Your task to perform on an android device: Go to Maps Image 0: 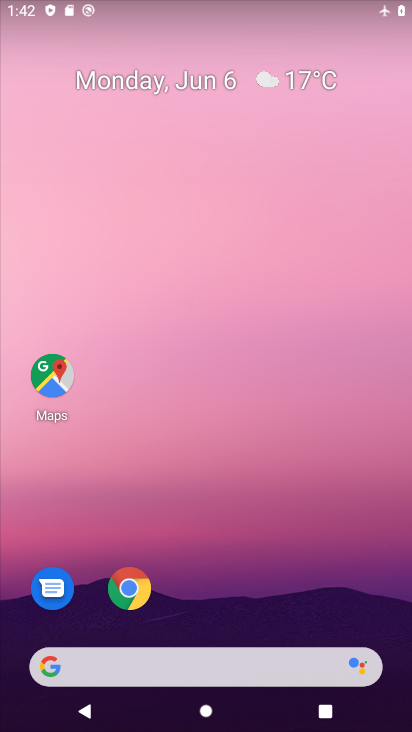
Step 0: click (43, 370)
Your task to perform on an android device: Go to Maps Image 1: 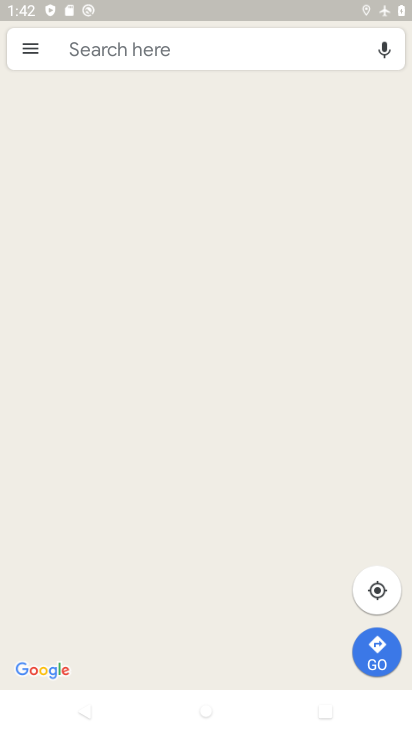
Step 1: task complete